Your task to perform on an android device: open device folders in google photos Image 0: 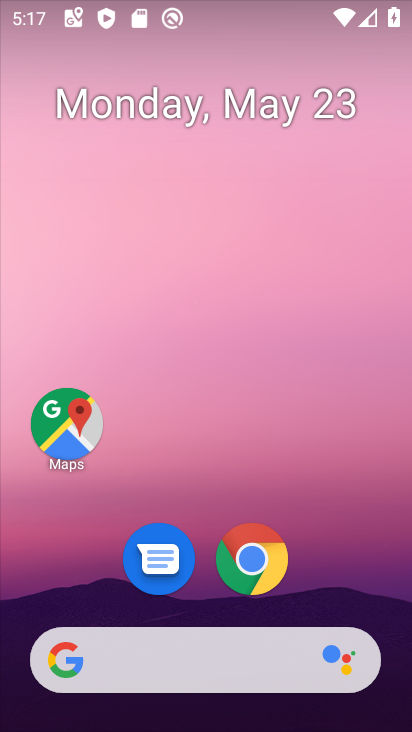
Step 0: drag from (218, 560) to (177, 76)
Your task to perform on an android device: open device folders in google photos Image 1: 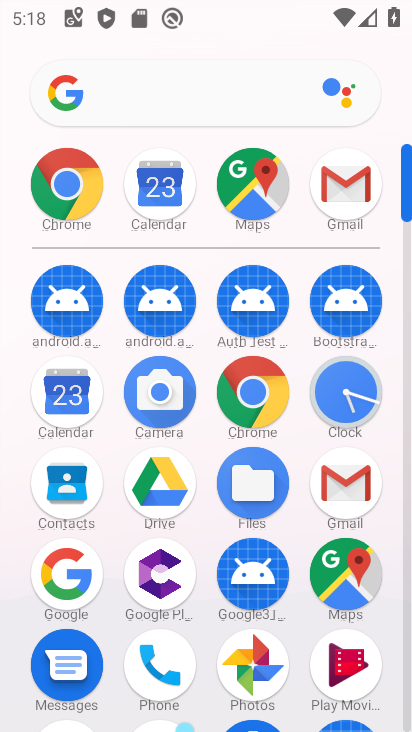
Step 1: click (271, 668)
Your task to perform on an android device: open device folders in google photos Image 2: 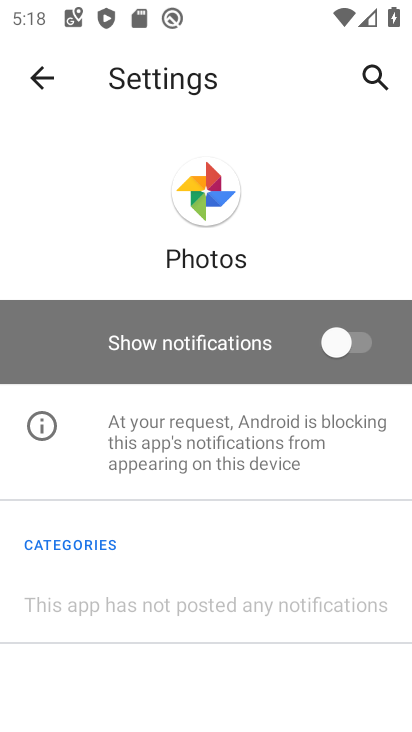
Step 2: press back button
Your task to perform on an android device: open device folders in google photos Image 3: 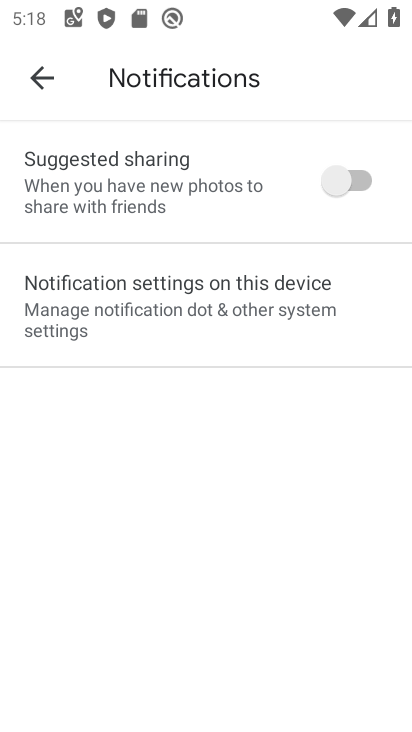
Step 3: press back button
Your task to perform on an android device: open device folders in google photos Image 4: 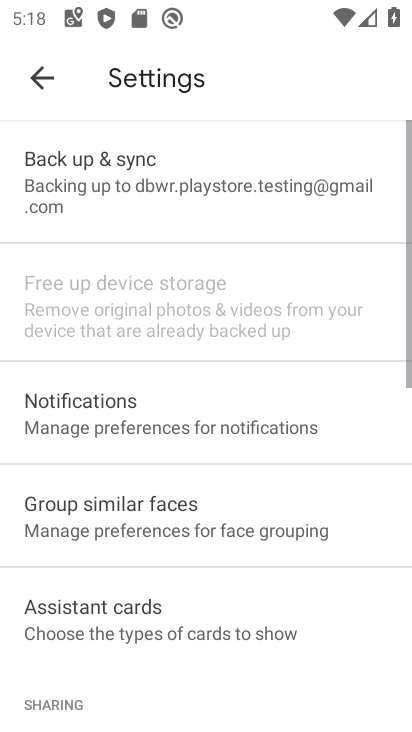
Step 4: press back button
Your task to perform on an android device: open device folders in google photos Image 5: 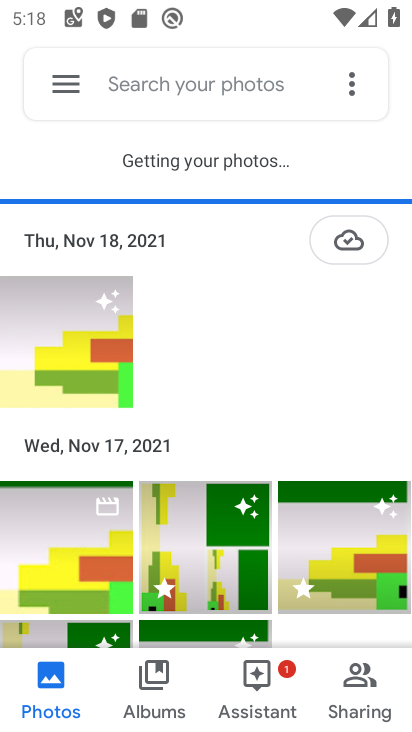
Step 5: click (372, 682)
Your task to perform on an android device: open device folders in google photos Image 6: 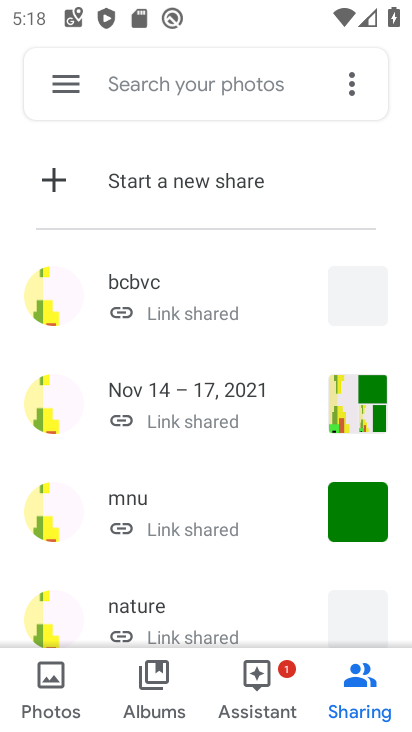
Step 6: click (263, 678)
Your task to perform on an android device: open device folders in google photos Image 7: 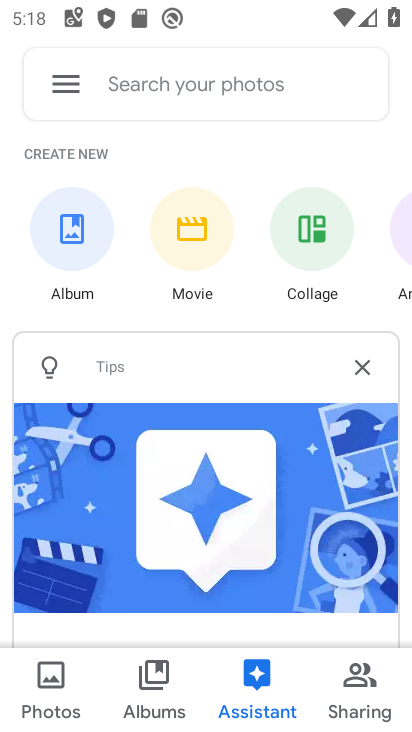
Step 7: click (39, 690)
Your task to perform on an android device: open device folders in google photos Image 8: 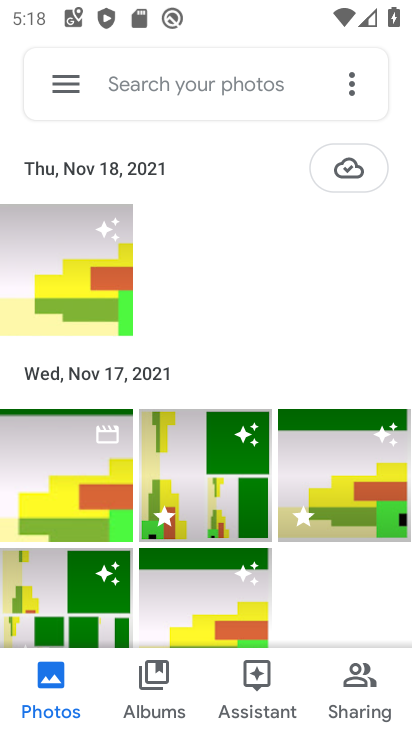
Step 8: click (65, 99)
Your task to perform on an android device: open device folders in google photos Image 9: 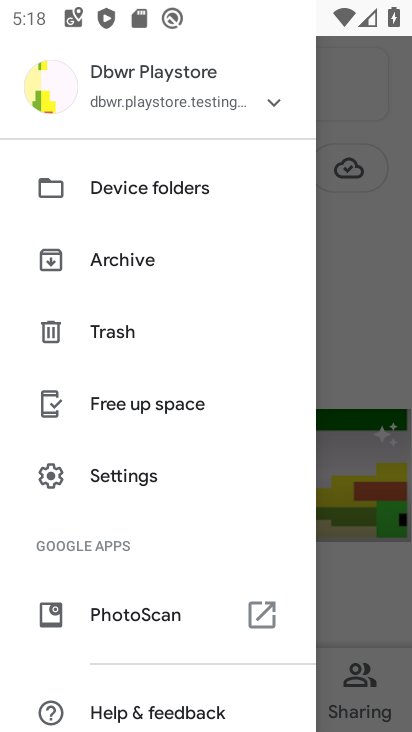
Step 9: click (110, 205)
Your task to perform on an android device: open device folders in google photos Image 10: 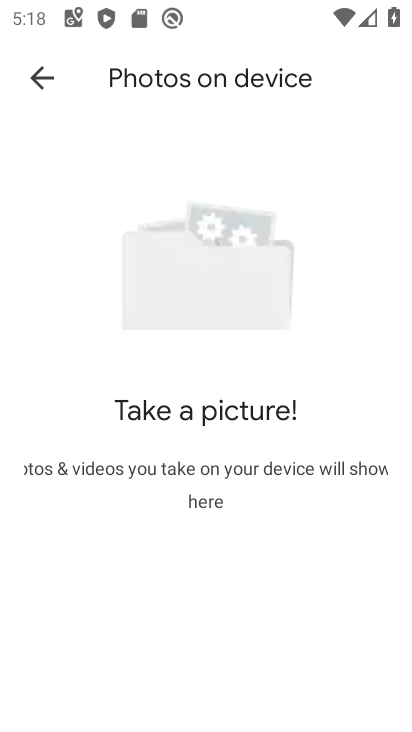
Step 10: task complete